Your task to perform on an android device: check google app version Image 0: 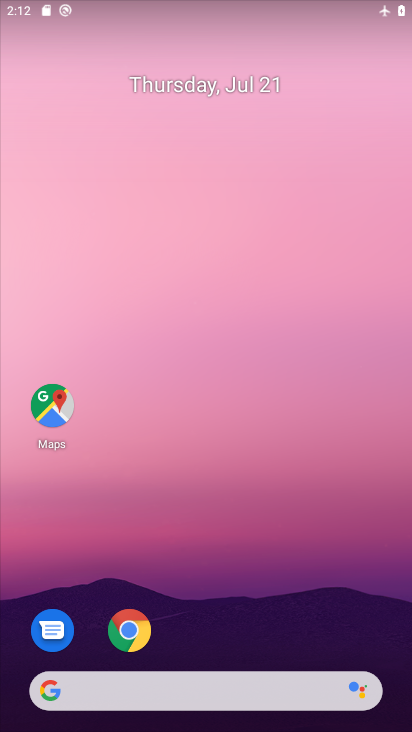
Step 0: drag from (244, 582) to (195, 171)
Your task to perform on an android device: check google app version Image 1: 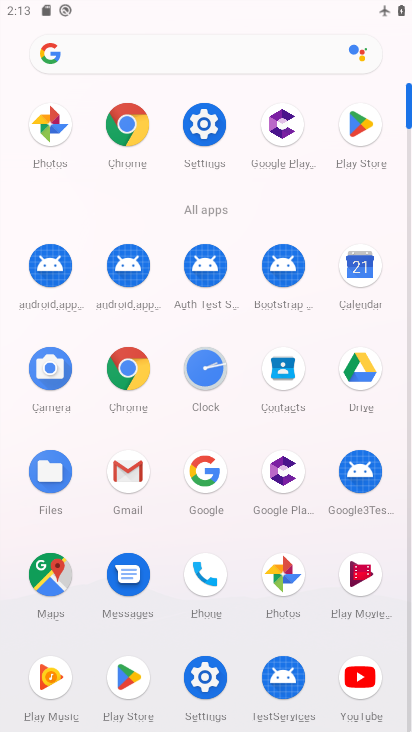
Step 1: click (207, 470)
Your task to perform on an android device: check google app version Image 2: 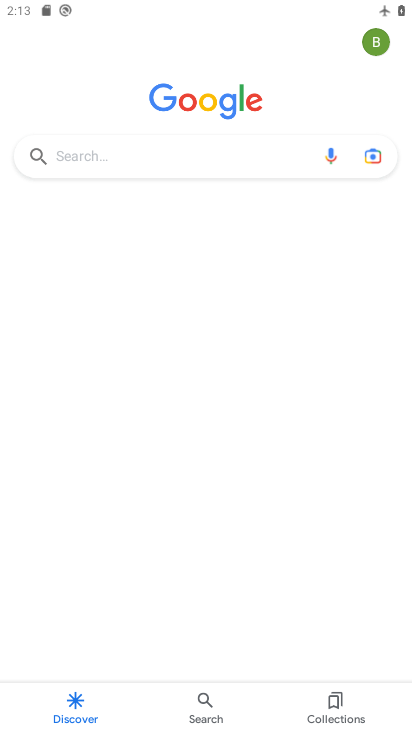
Step 2: drag from (312, 137) to (284, 670)
Your task to perform on an android device: check google app version Image 3: 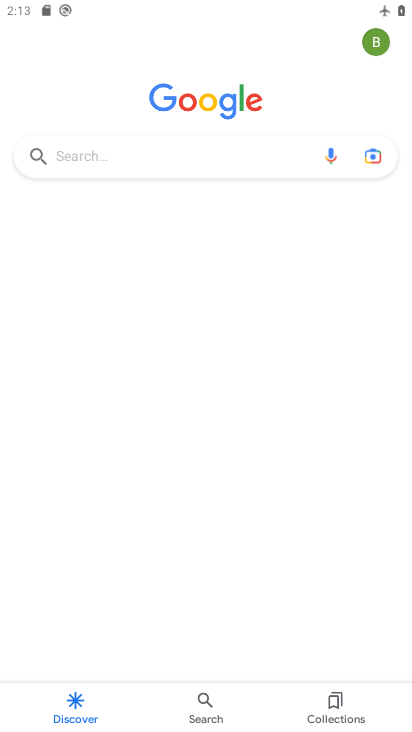
Step 3: drag from (384, 36) to (322, 649)
Your task to perform on an android device: check google app version Image 4: 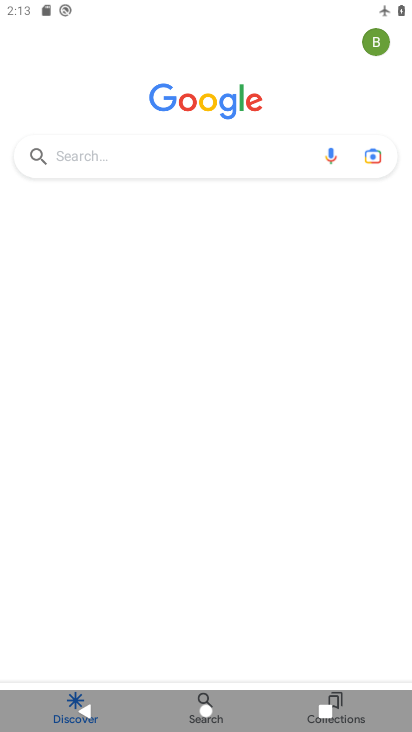
Step 4: drag from (367, 43) to (339, 378)
Your task to perform on an android device: check google app version Image 5: 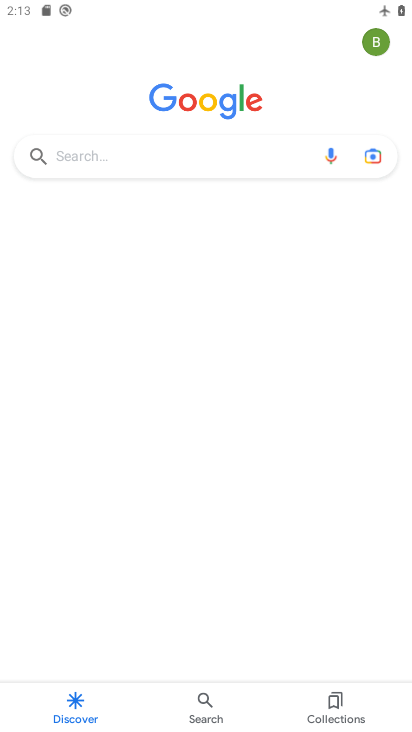
Step 5: drag from (302, 93) to (307, 480)
Your task to perform on an android device: check google app version Image 6: 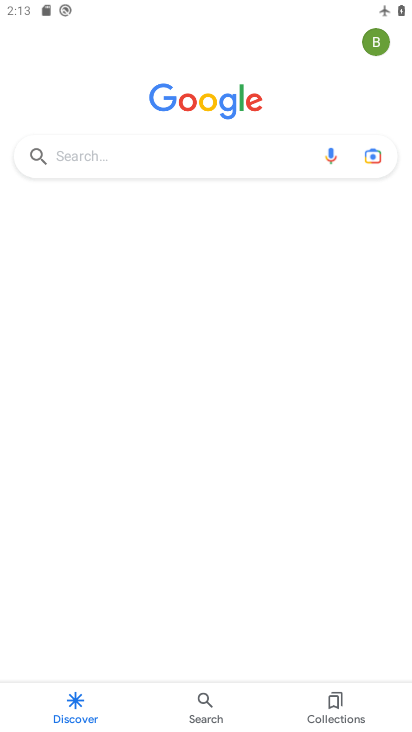
Step 6: drag from (235, 71) to (223, 640)
Your task to perform on an android device: check google app version Image 7: 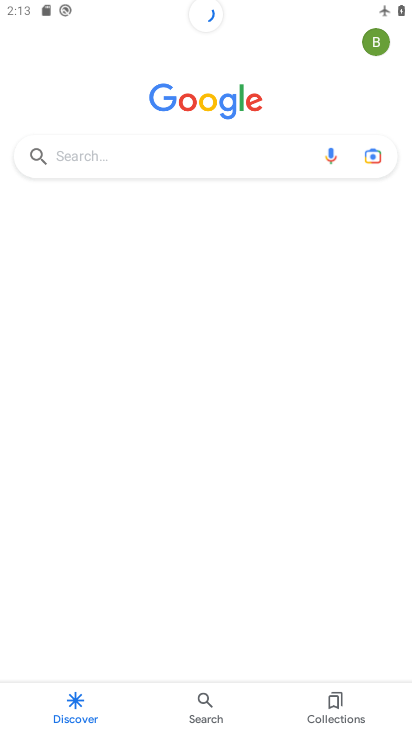
Step 7: drag from (235, 200) to (275, 601)
Your task to perform on an android device: check google app version Image 8: 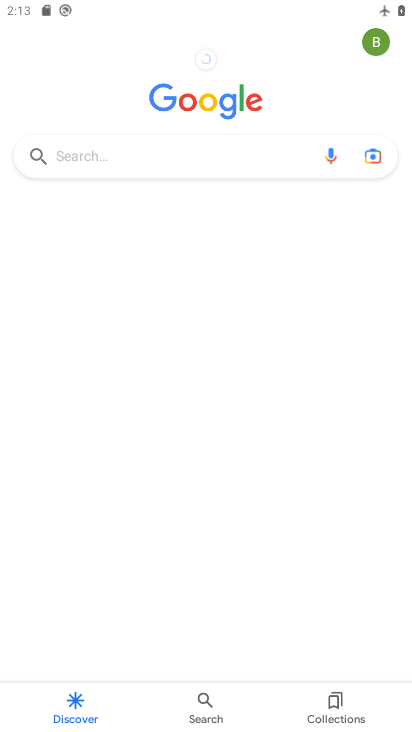
Step 8: drag from (337, 177) to (243, 516)
Your task to perform on an android device: check google app version Image 9: 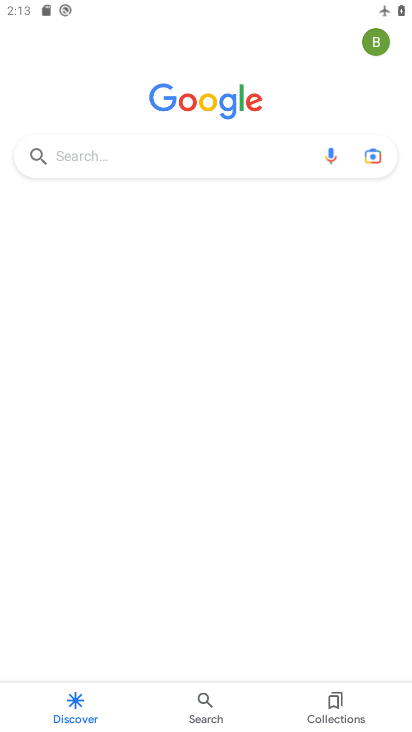
Step 9: drag from (303, 299) to (313, 473)
Your task to perform on an android device: check google app version Image 10: 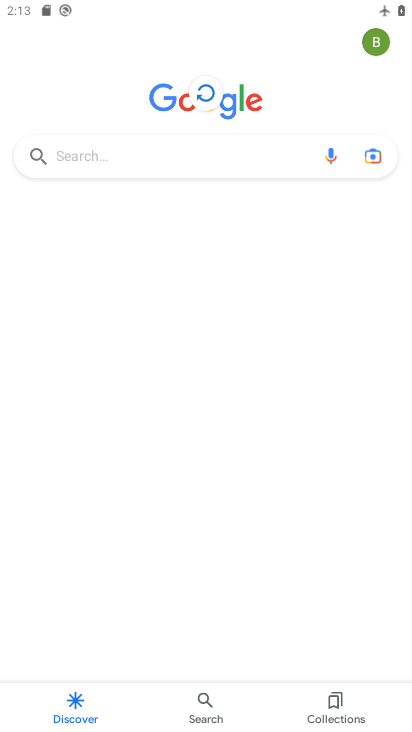
Step 10: drag from (252, 0) to (242, 565)
Your task to perform on an android device: check google app version Image 11: 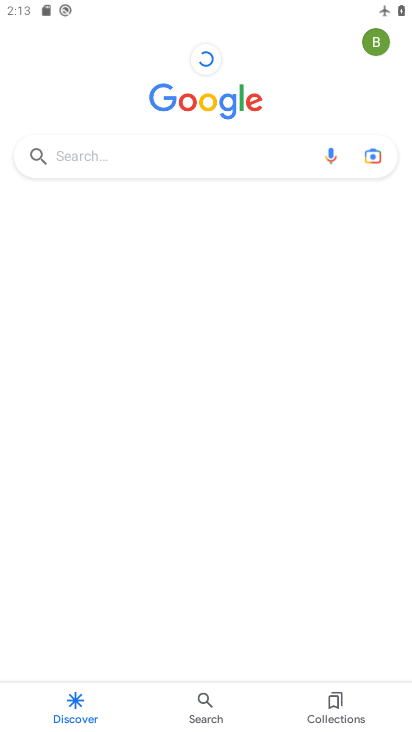
Step 11: drag from (203, 8) to (279, 503)
Your task to perform on an android device: check google app version Image 12: 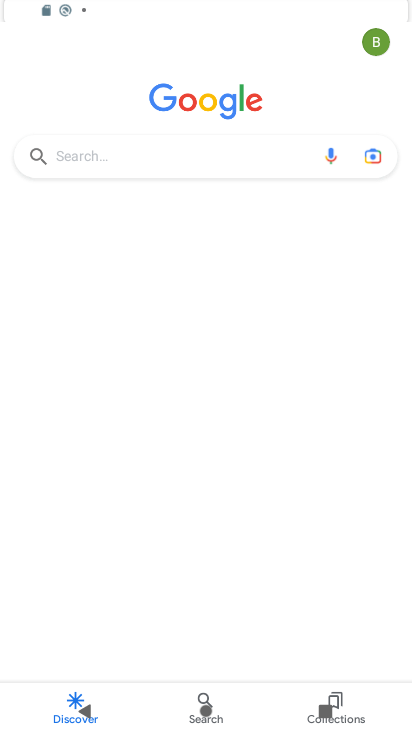
Step 12: drag from (223, 69) to (342, 462)
Your task to perform on an android device: check google app version Image 13: 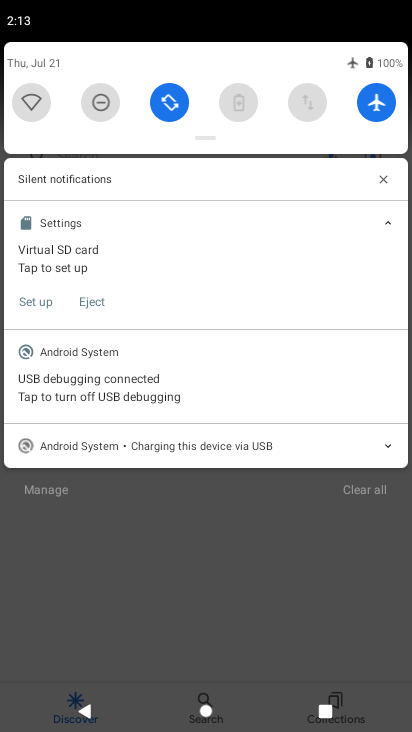
Step 13: drag from (308, 37) to (316, 471)
Your task to perform on an android device: check google app version Image 14: 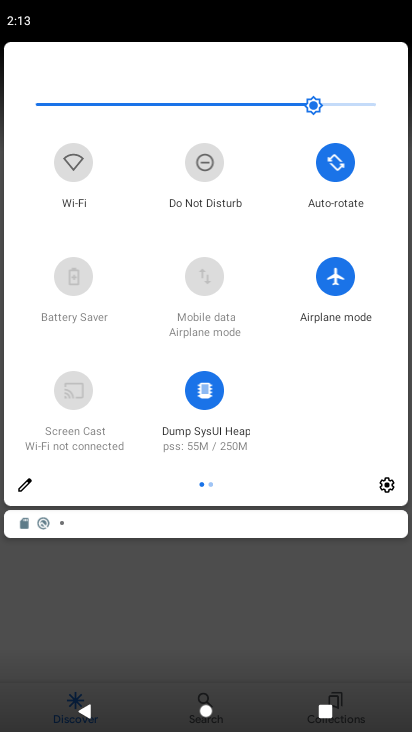
Step 14: drag from (158, 557) to (155, 7)
Your task to perform on an android device: check google app version Image 15: 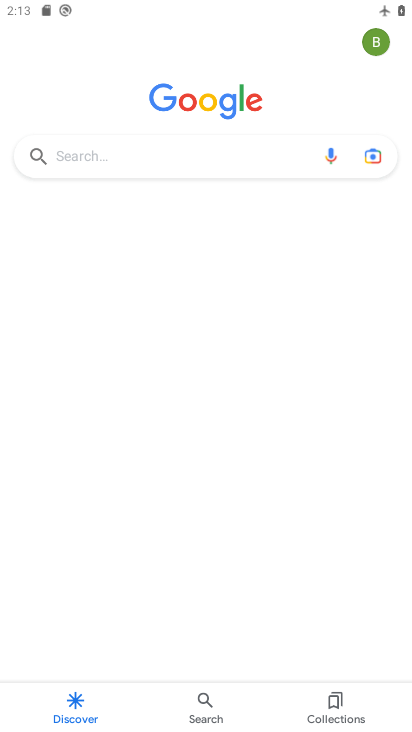
Step 15: drag from (361, 35) to (357, 368)
Your task to perform on an android device: check google app version Image 16: 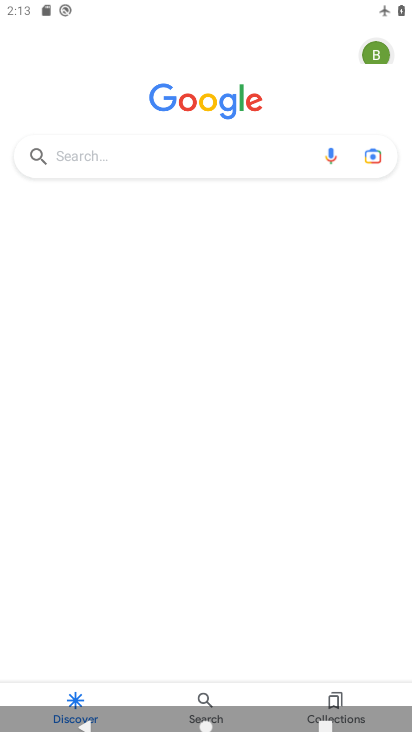
Step 16: drag from (374, 41) to (347, 374)
Your task to perform on an android device: check google app version Image 17: 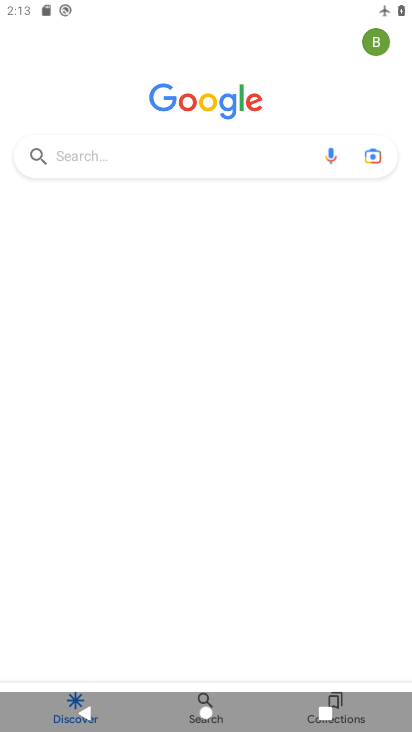
Step 17: drag from (382, 59) to (355, 523)
Your task to perform on an android device: check google app version Image 18: 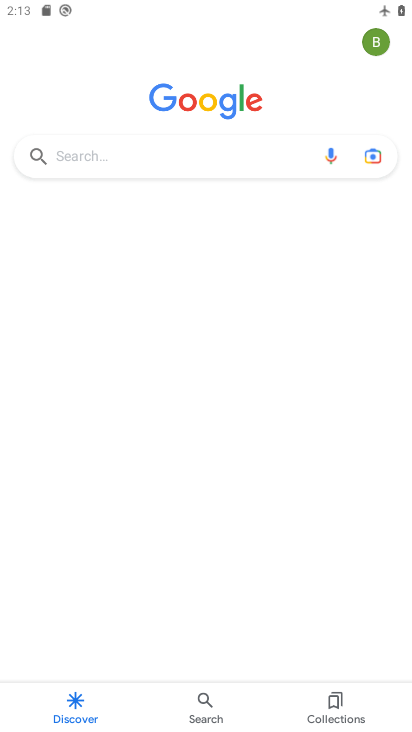
Step 18: drag from (372, 49) to (325, 454)
Your task to perform on an android device: check google app version Image 19: 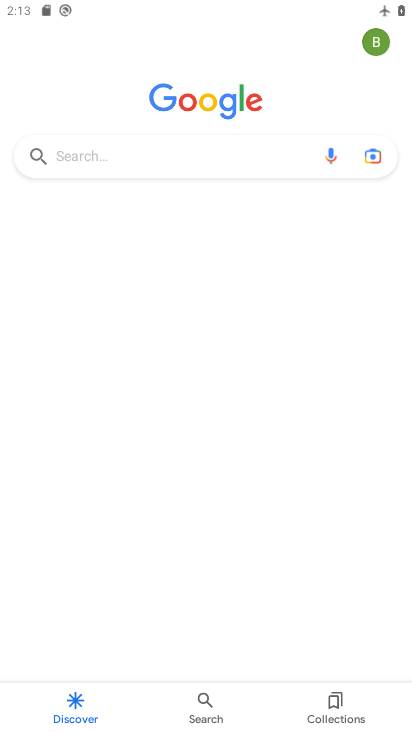
Step 19: drag from (369, 33) to (371, 455)
Your task to perform on an android device: check google app version Image 20: 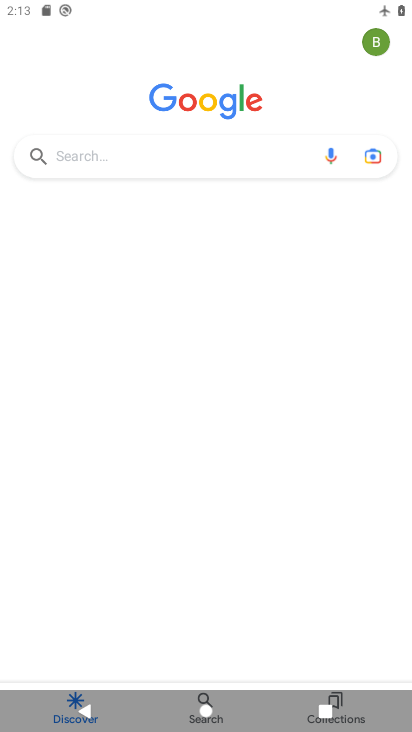
Step 20: drag from (380, 36) to (335, 237)
Your task to perform on an android device: check google app version Image 21: 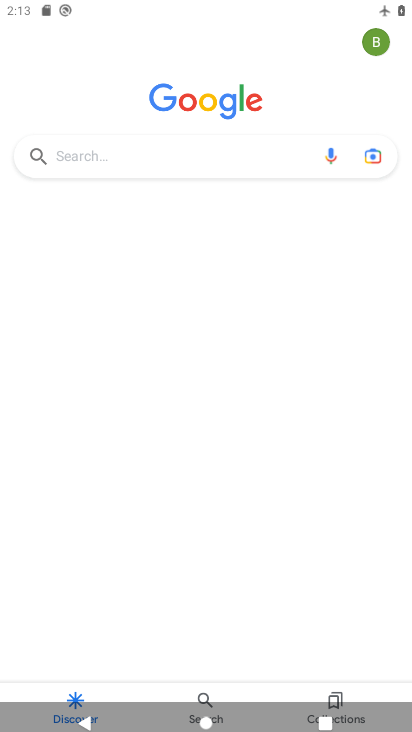
Step 21: drag from (367, 33) to (365, 394)
Your task to perform on an android device: check google app version Image 22: 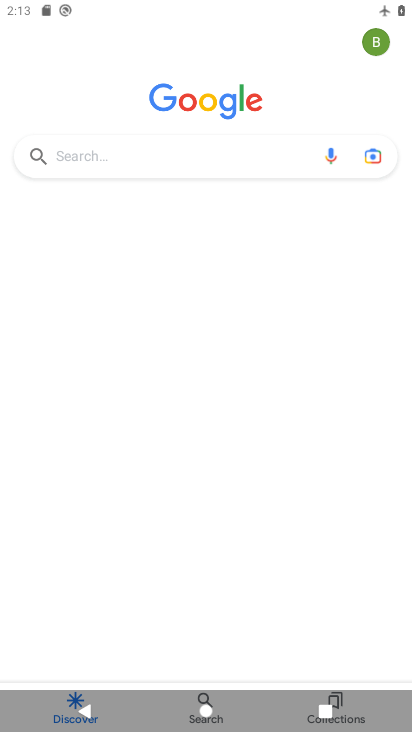
Step 22: drag from (369, 90) to (348, 404)
Your task to perform on an android device: check google app version Image 23: 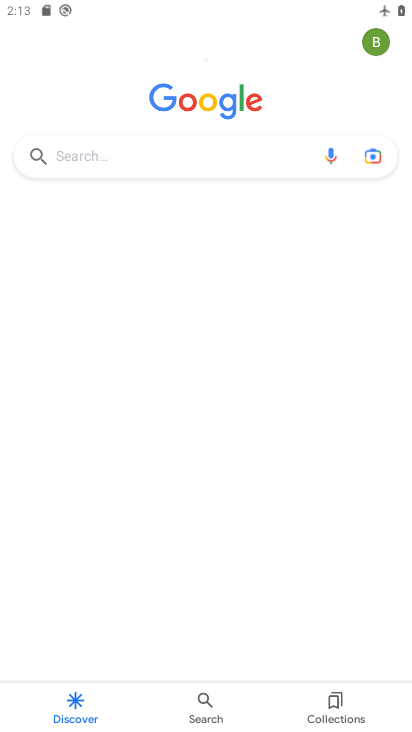
Step 23: drag from (384, 28) to (281, 497)
Your task to perform on an android device: check google app version Image 24: 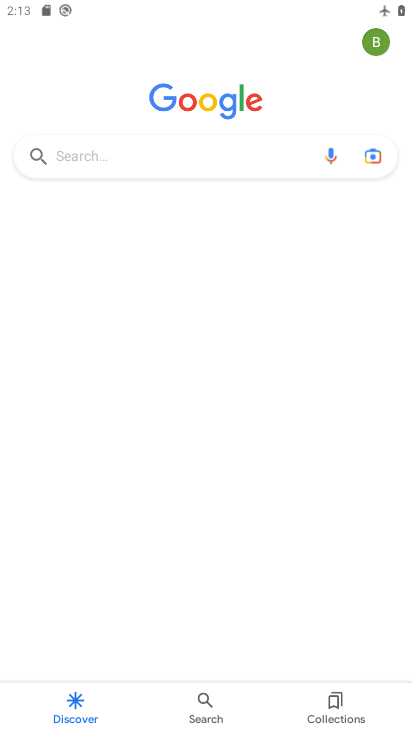
Step 24: drag from (362, 40) to (377, 427)
Your task to perform on an android device: check google app version Image 25: 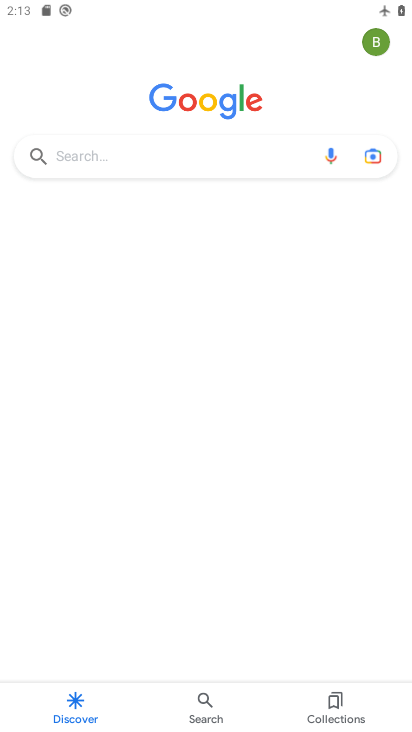
Step 25: drag from (333, 68) to (341, 405)
Your task to perform on an android device: check google app version Image 26: 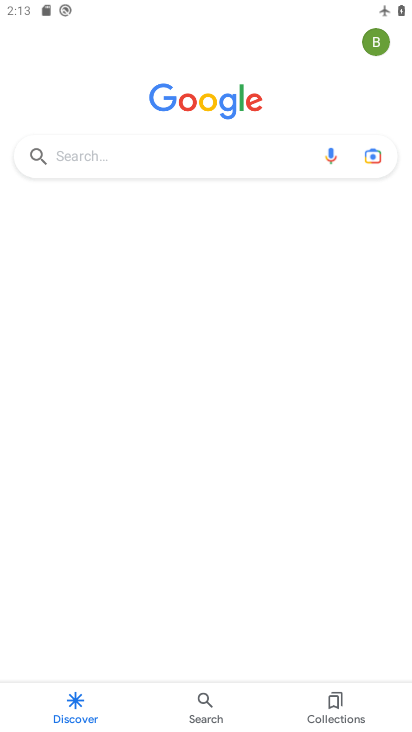
Step 26: drag from (361, 37) to (345, 199)
Your task to perform on an android device: check google app version Image 27: 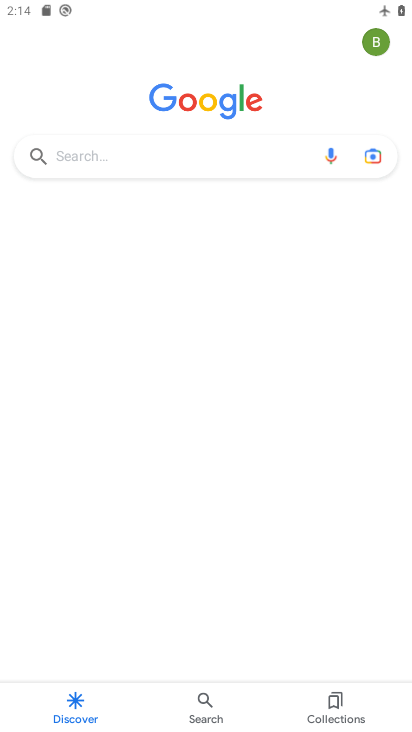
Step 27: click (376, 42)
Your task to perform on an android device: check google app version Image 28: 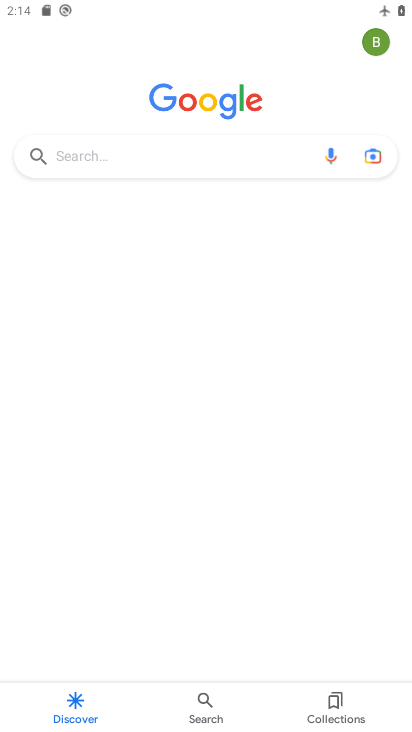
Step 28: click (377, 43)
Your task to perform on an android device: check google app version Image 29: 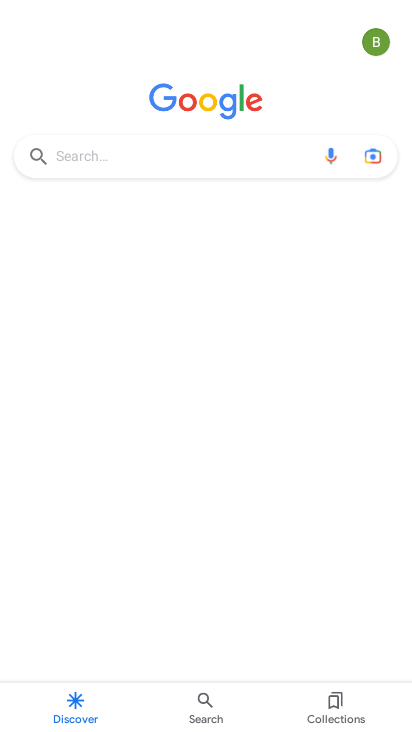
Step 29: click (377, 43)
Your task to perform on an android device: check google app version Image 30: 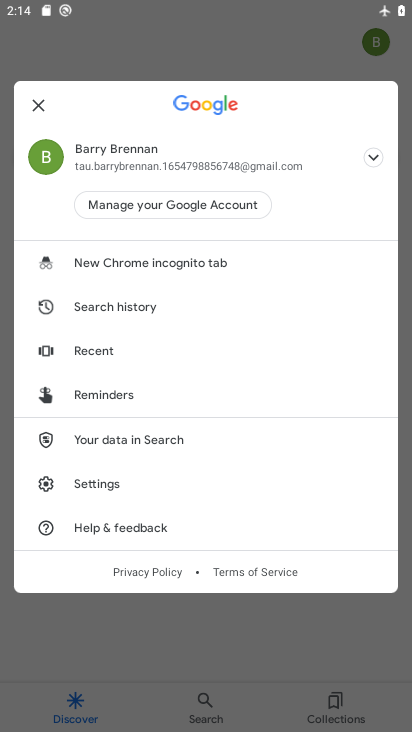
Step 30: click (377, 45)
Your task to perform on an android device: check google app version Image 31: 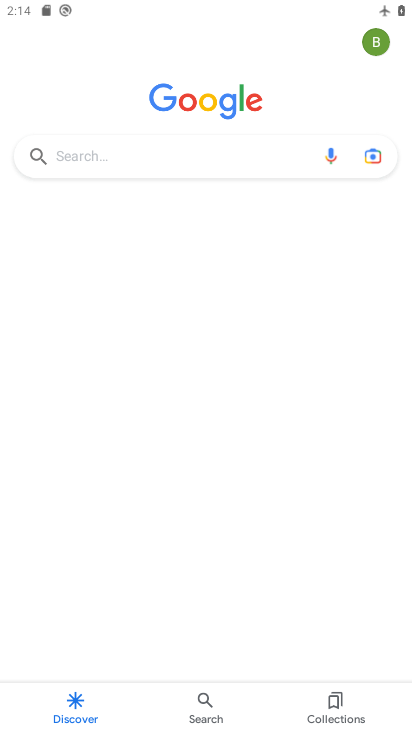
Step 31: click (375, 47)
Your task to perform on an android device: check google app version Image 32: 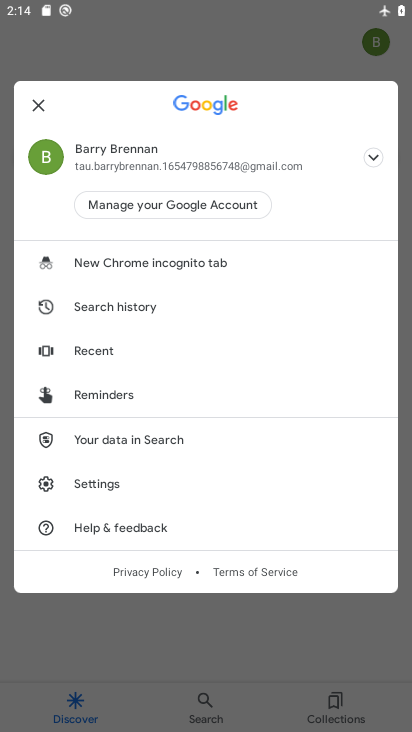
Step 32: click (385, 45)
Your task to perform on an android device: check google app version Image 33: 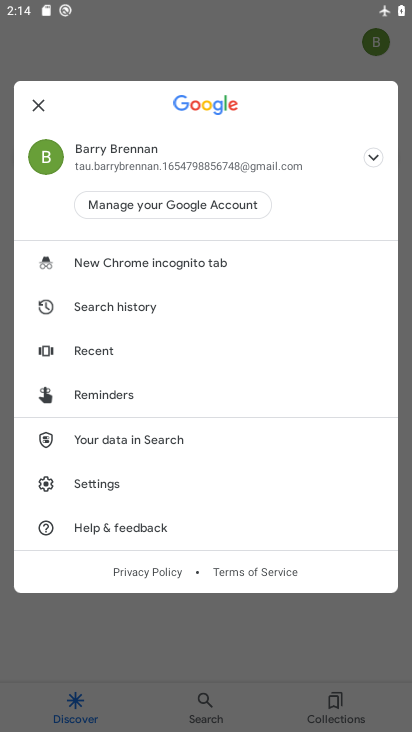
Step 33: click (91, 469)
Your task to perform on an android device: check google app version Image 34: 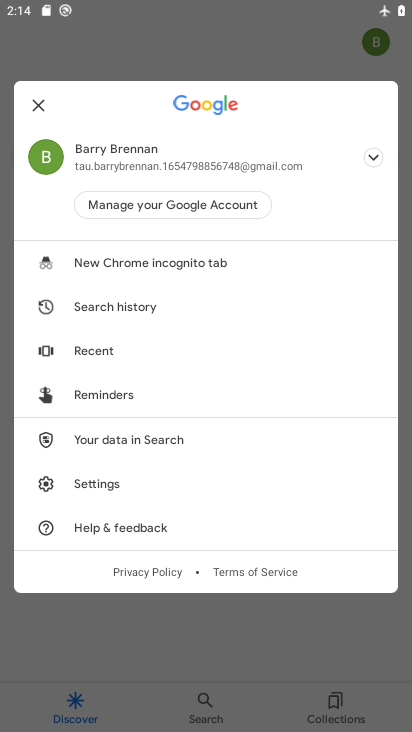
Step 34: click (106, 474)
Your task to perform on an android device: check google app version Image 35: 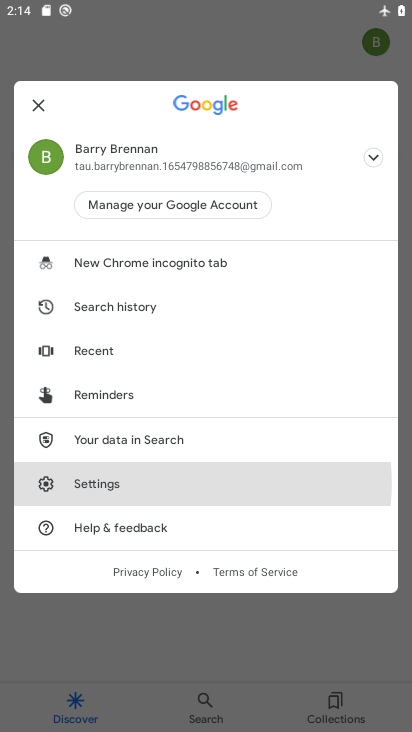
Step 35: click (103, 477)
Your task to perform on an android device: check google app version Image 36: 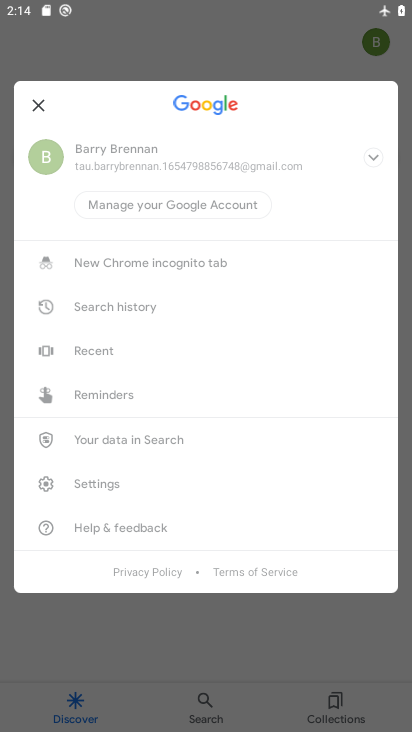
Step 36: click (103, 481)
Your task to perform on an android device: check google app version Image 37: 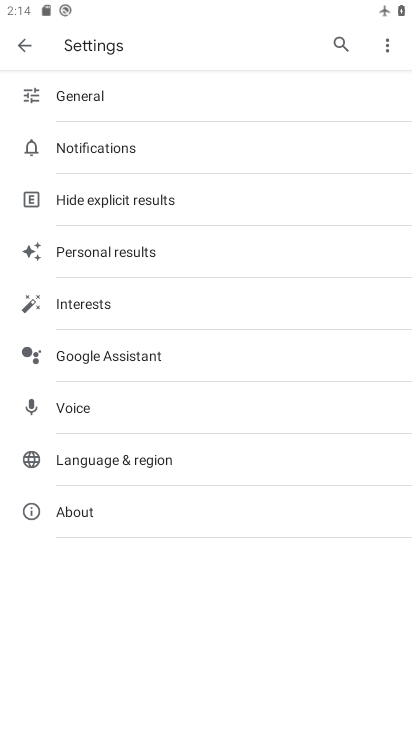
Step 37: click (88, 516)
Your task to perform on an android device: check google app version Image 38: 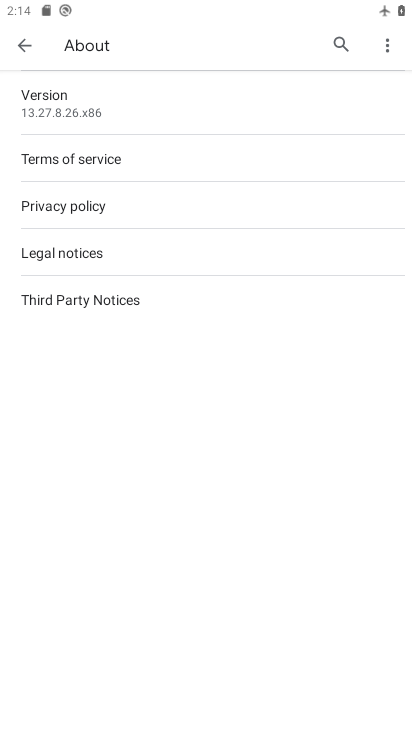
Step 38: click (60, 110)
Your task to perform on an android device: check google app version Image 39: 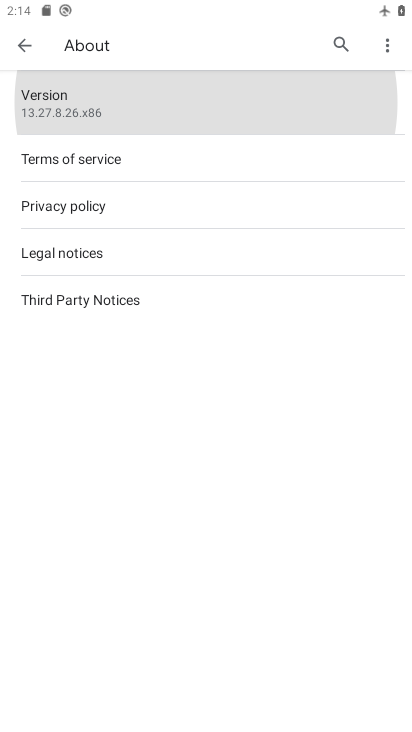
Step 39: click (60, 110)
Your task to perform on an android device: check google app version Image 40: 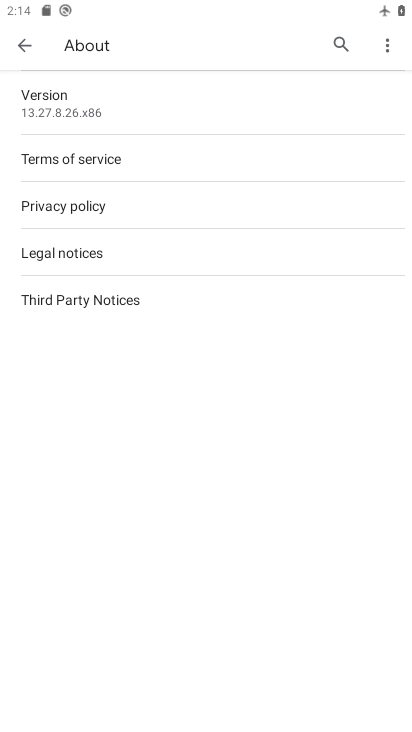
Step 40: task complete